Your task to perform on an android device: Add bose soundlink to the cart on costco.com Image 0: 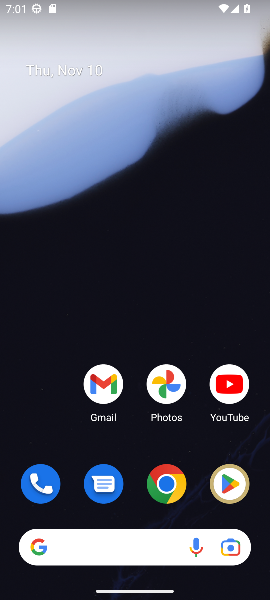
Step 0: click (165, 486)
Your task to perform on an android device: Add bose soundlink to the cart on costco.com Image 1: 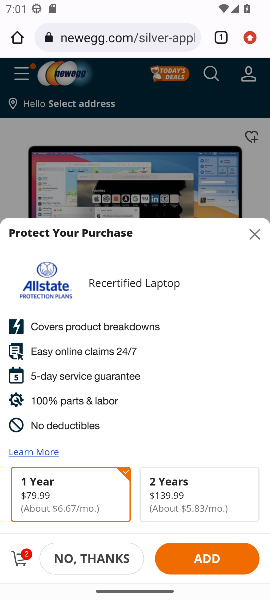
Step 1: click (97, 45)
Your task to perform on an android device: Add bose soundlink to the cart on costco.com Image 2: 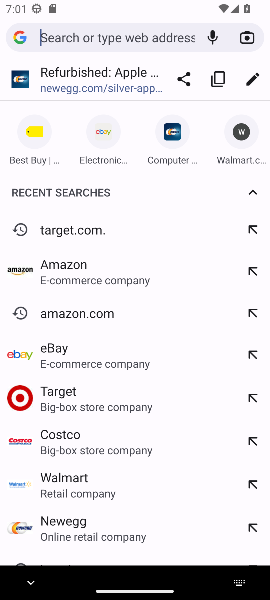
Step 2: type "costco.com"
Your task to perform on an android device: Add bose soundlink to the cart on costco.com Image 3: 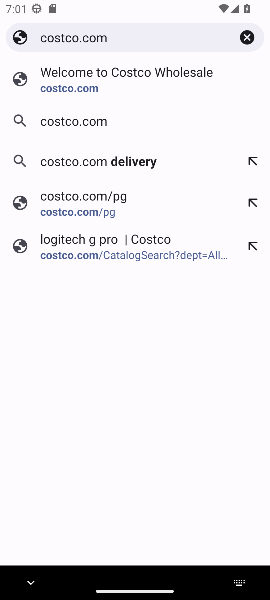
Step 3: click (67, 90)
Your task to perform on an android device: Add bose soundlink to the cart on costco.com Image 4: 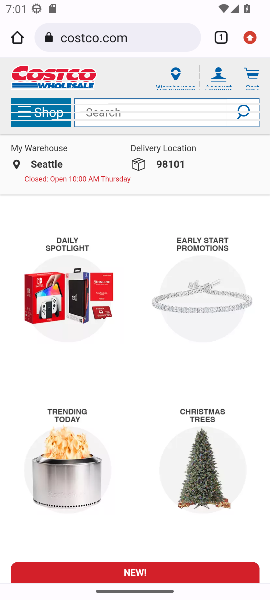
Step 4: click (93, 111)
Your task to perform on an android device: Add bose soundlink to the cart on costco.com Image 5: 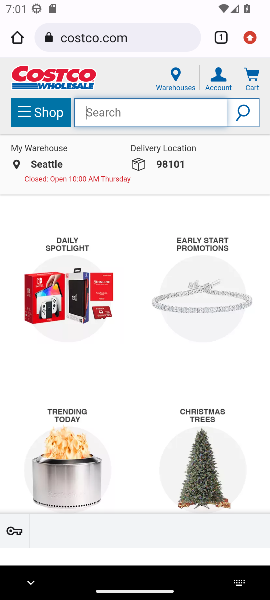
Step 5: type "bose soundlink"
Your task to perform on an android device: Add bose soundlink to the cart on costco.com Image 6: 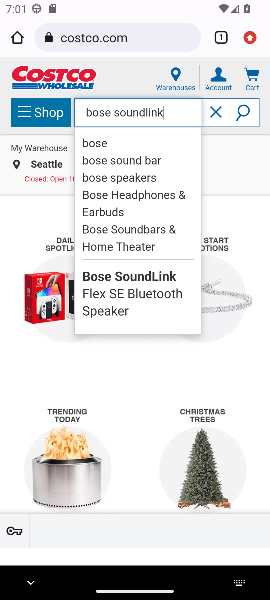
Step 6: click (245, 114)
Your task to perform on an android device: Add bose soundlink to the cart on costco.com Image 7: 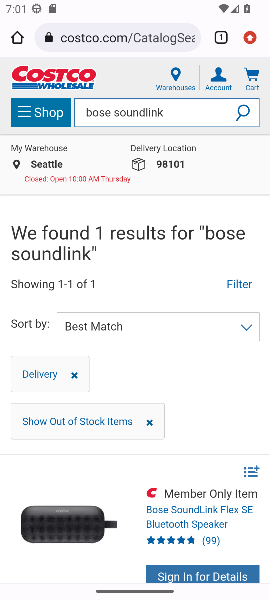
Step 7: drag from (151, 423) to (164, 240)
Your task to perform on an android device: Add bose soundlink to the cart on costco.com Image 8: 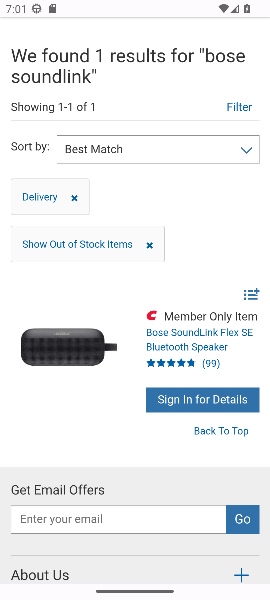
Step 8: click (99, 375)
Your task to perform on an android device: Add bose soundlink to the cart on costco.com Image 9: 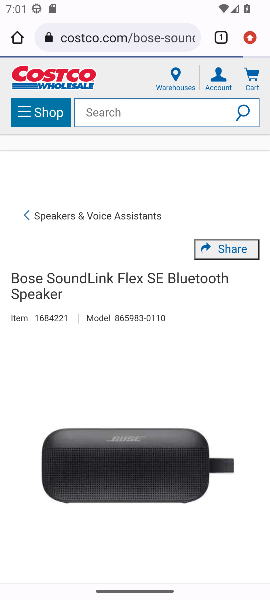
Step 9: task complete